Your task to perform on an android device: Go to Amazon Image 0: 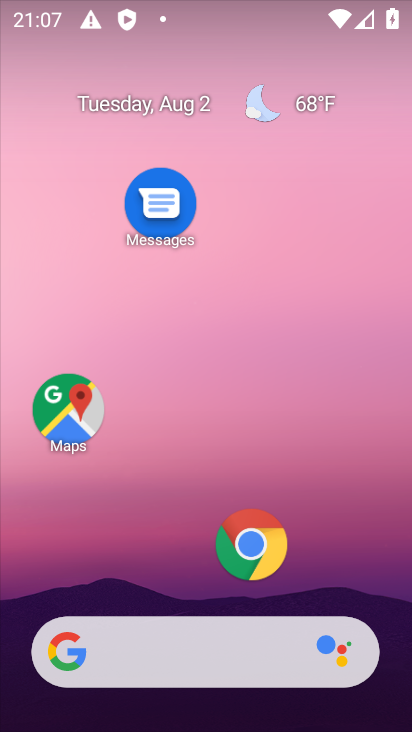
Step 0: click (236, 553)
Your task to perform on an android device: Go to Amazon Image 1: 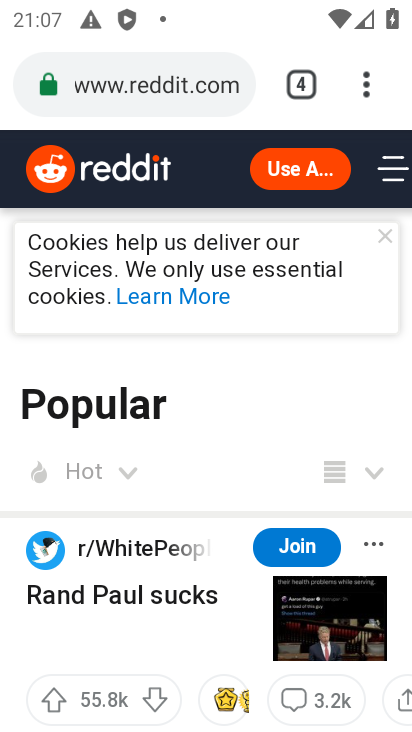
Step 1: click (313, 80)
Your task to perform on an android device: Go to Amazon Image 2: 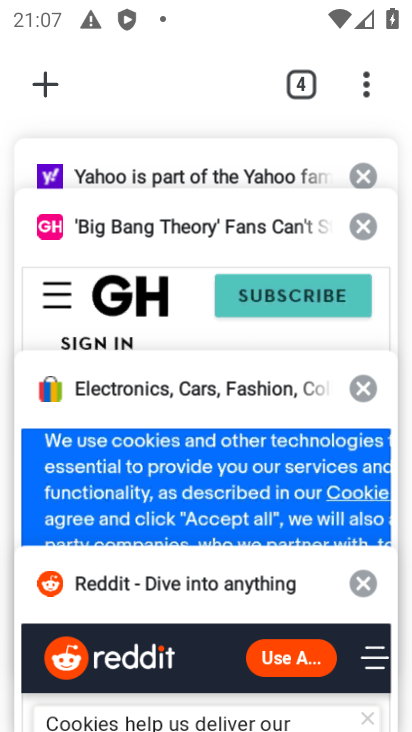
Step 2: click (43, 82)
Your task to perform on an android device: Go to Amazon Image 3: 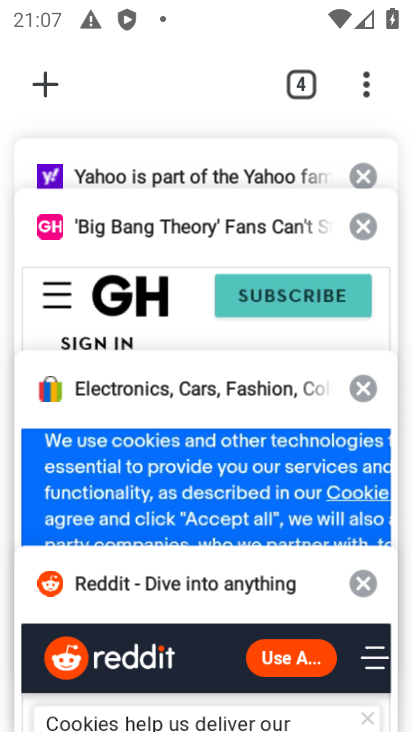
Step 3: click (48, 81)
Your task to perform on an android device: Go to Amazon Image 4: 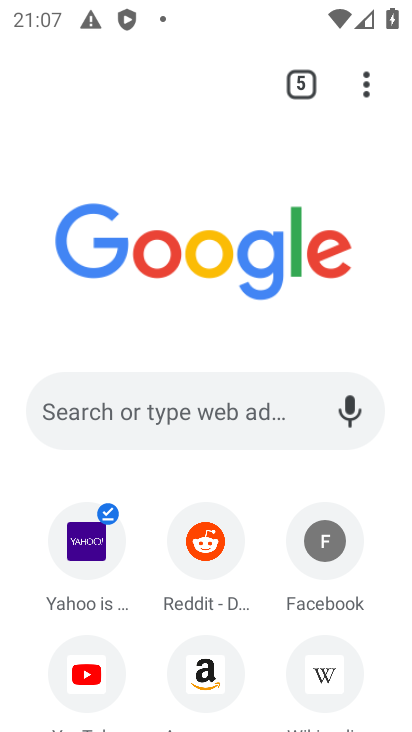
Step 4: click (206, 660)
Your task to perform on an android device: Go to Amazon Image 5: 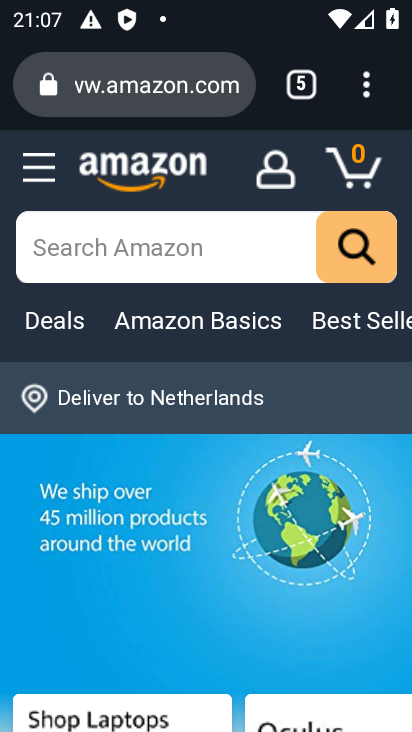
Step 5: task complete